Your task to perform on an android device: Open the calendar and show me this week's events? Image 0: 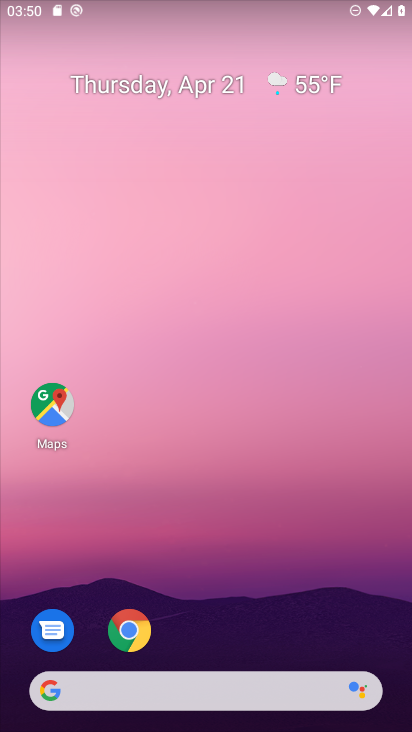
Step 0: drag from (286, 638) to (277, 240)
Your task to perform on an android device: Open the calendar and show me this week's events? Image 1: 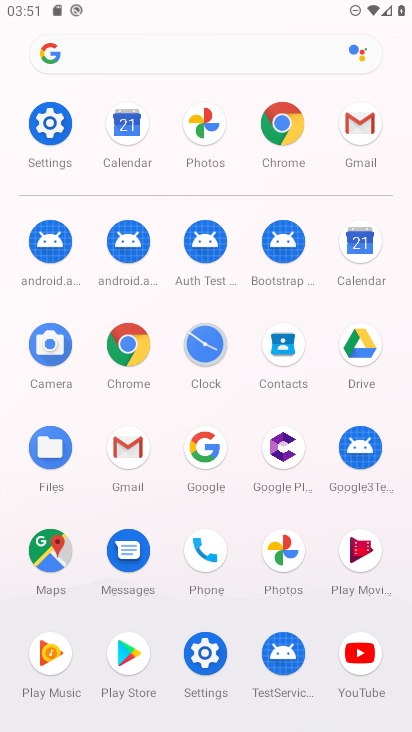
Step 1: click (108, 141)
Your task to perform on an android device: Open the calendar and show me this week's events? Image 2: 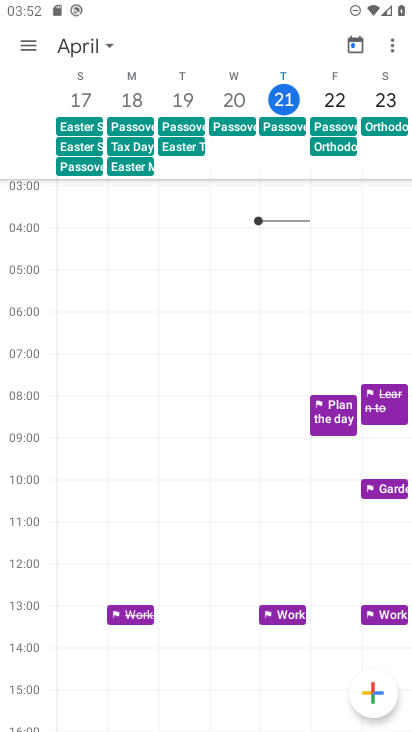
Step 2: click (90, 41)
Your task to perform on an android device: Open the calendar and show me this week's events? Image 3: 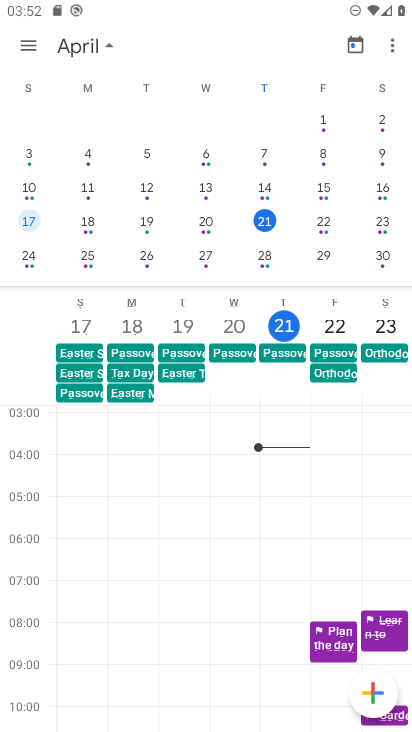
Step 3: task complete